Your task to perform on an android device: Open calendar and show me the third week of next month Image 0: 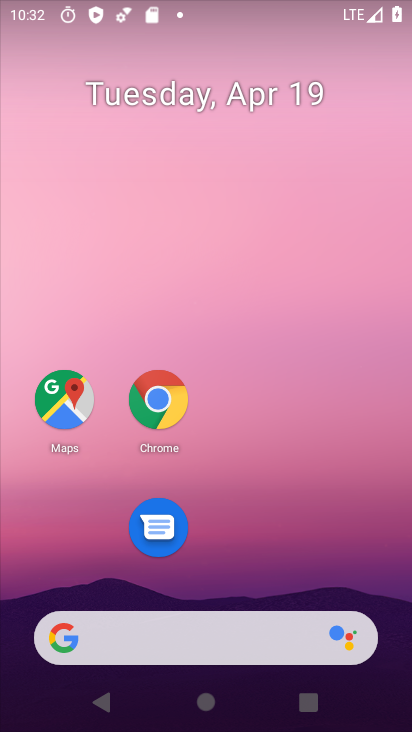
Step 0: drag from (271, 664) to (275, 103)
Your task to perform on an android device: Open calendar and show me the third week of next month Image 1: 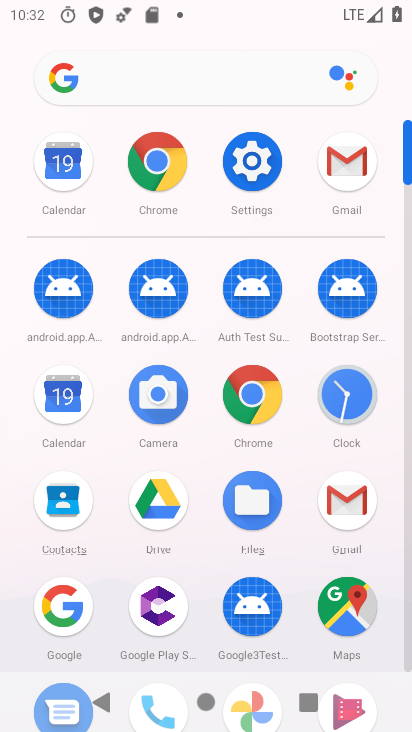
Step 1: click (70, 398)
Your task to perform on an android device: Open calendar and show me the third week of next month Image 2: 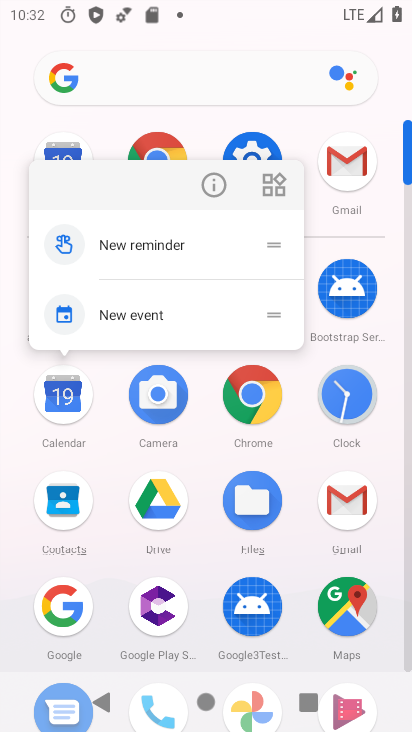
Step 2: click (65, 403)
Your task to perform on an android device: Open calendar and show me the third week of next month Image 3: 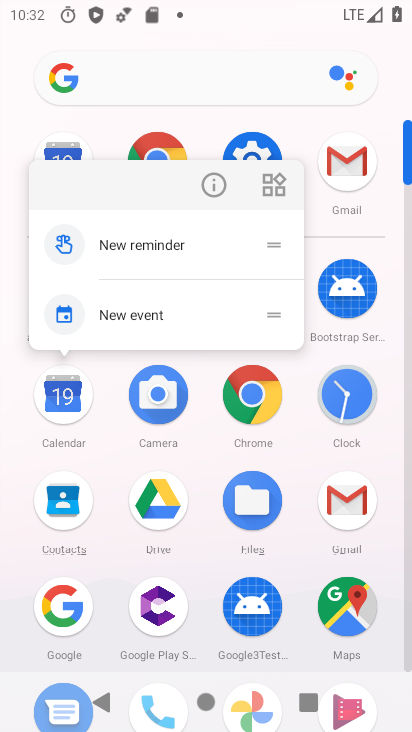
Step 3: click (69, 398)
Your task to perform on an android device: Open calendar and show me the third week of next month Image 4: 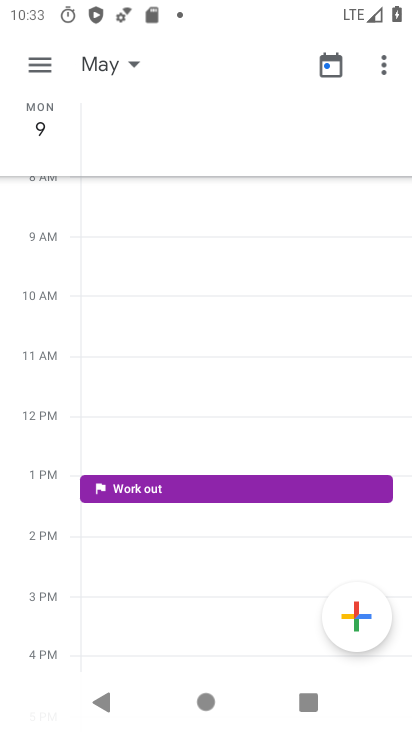
Step 4: click (40, 54)
Your task to perform on an android device: Open calendar and show me the third week of next month Image 5: 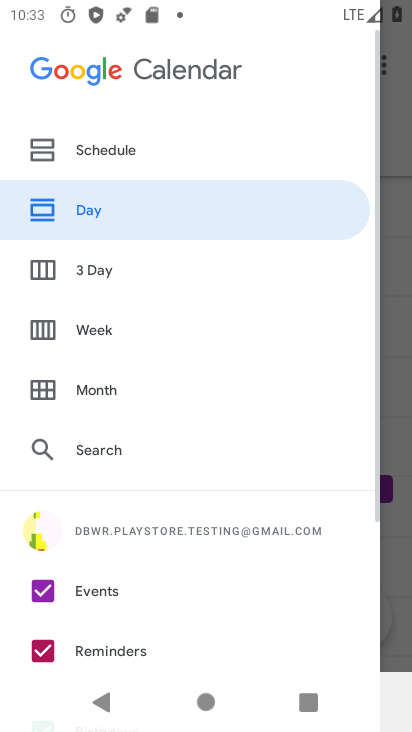
Step 5: click (88, 387)
Your task to perform on an android device: Open calendar and show me the third week of next month Image 6: 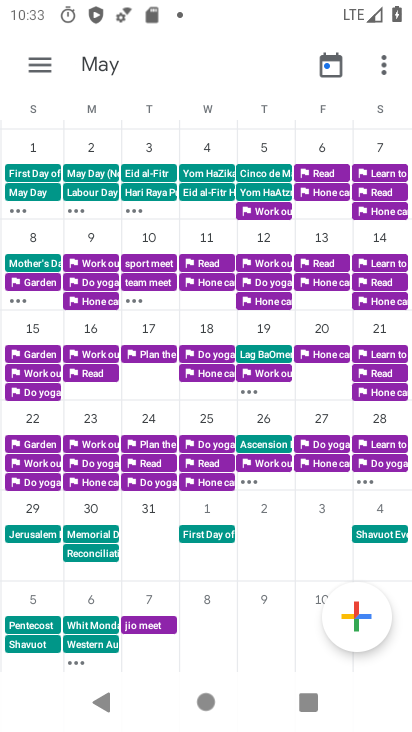
Step 6: click (87, 335)
Your task to perform on an android device: Open calendar and show me the third week of next month Image 7: 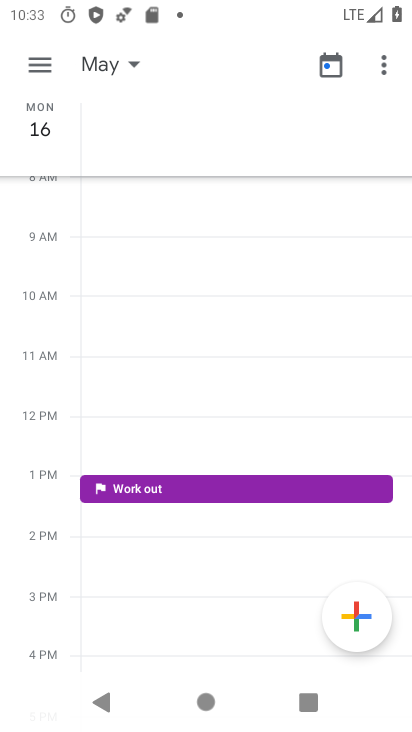
Step 7: task complete